Your task to perform on an android device: Open calendar and show me the first week of next month Image 0: 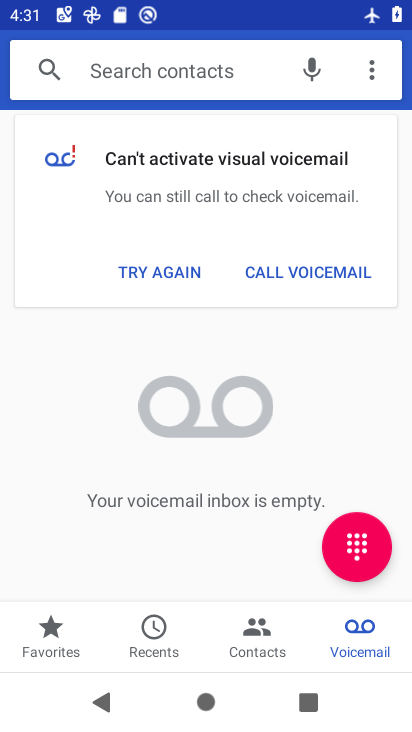
Step 0: press home button
Your task to perform on an android device: Open calendar and show me the first week of next month Image 1: 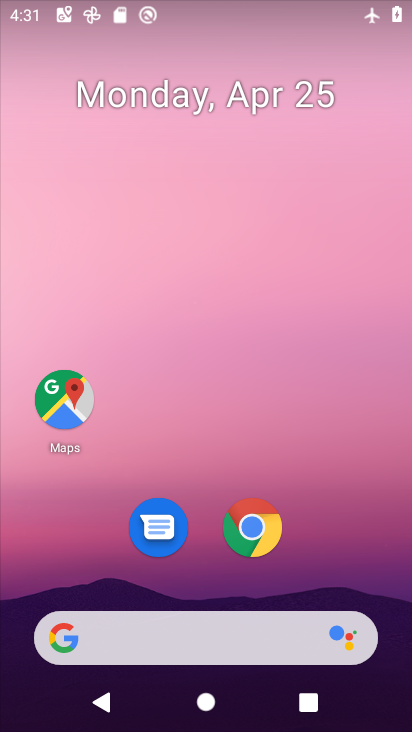
Step 1: drag from (400, 638) to (353, 131)
Your task to perform on an android device: Open calendar and show me the first week of next month Image 2: 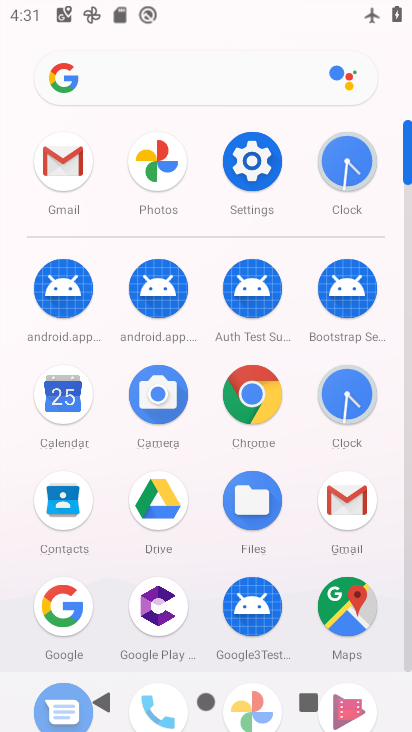
Step 2: click (408, 651)
Your task to perform on an android device: Open calendar and show me the first week of next month Image 3: 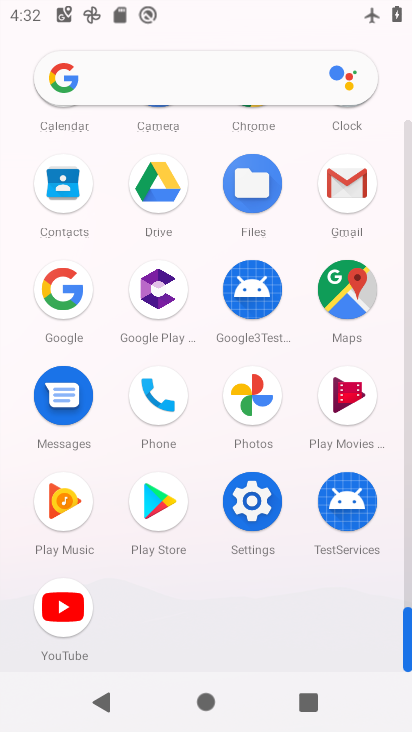
Step 3: click (406, 244)
Your task to perform on an android device: Open calendar and show me the first week of next month Image 4: 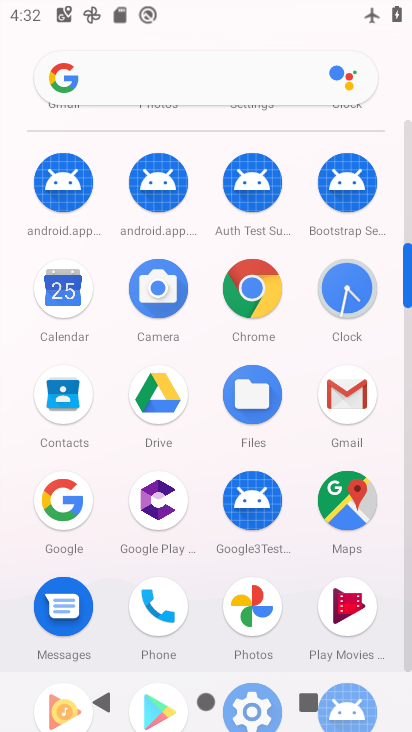
Step 4: click (60, 290)
Your task to perform on an android device: Open calendar and show me the first week of next month Image 5: 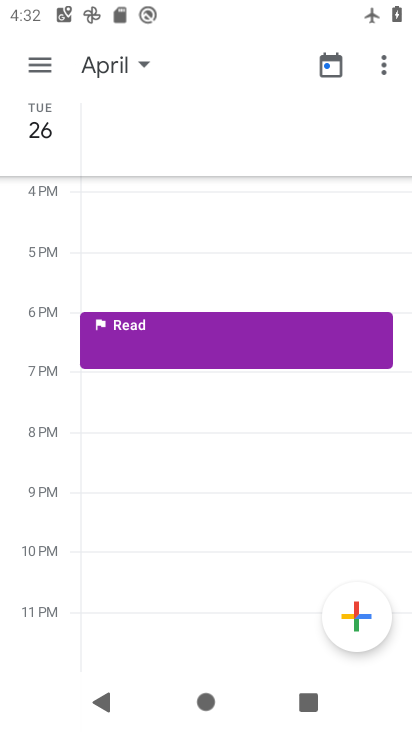
Step 5: click (41, 65)
Your task to perform on an android device: Open calendar and show me the first week of next month Image 6: 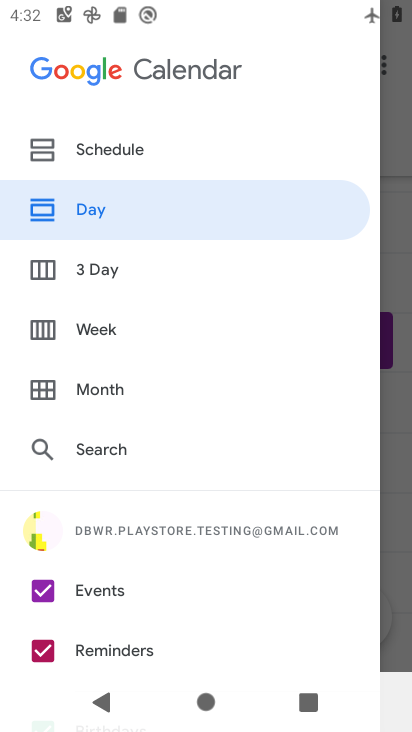
Step 6: click (101, 327)
Your task to perform on an android device: Open calendar and show me the first week of next month Image 7: 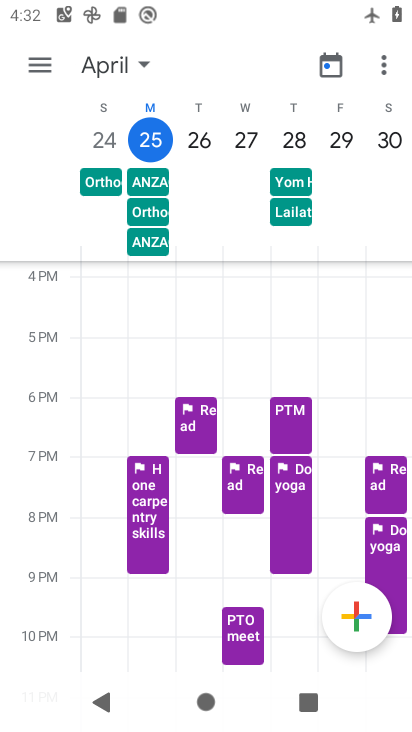
Step 7: click (141, 66)
Your task to perform on an android device: Open calendar and show me the first week of next month Image 8: 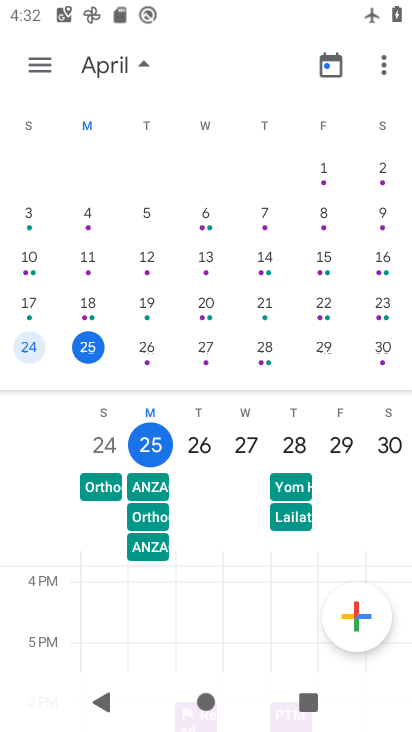
Step 8: task complete